Your task to perform on an android device: Go to Google maps Image 0: 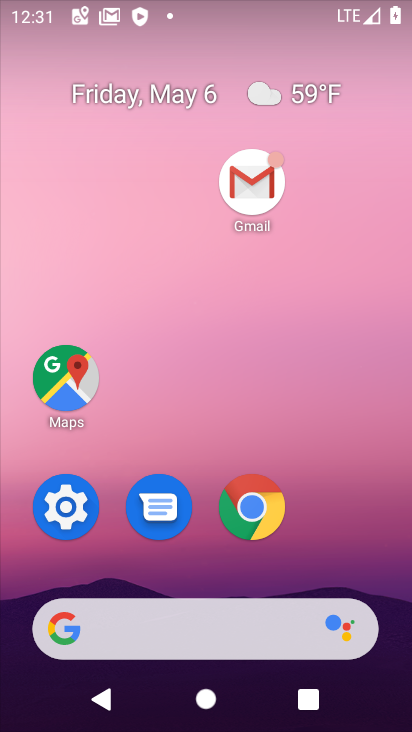
Step 0: click (59, 386)
Your task to perform on an android device: Go to Google maps Image 1: 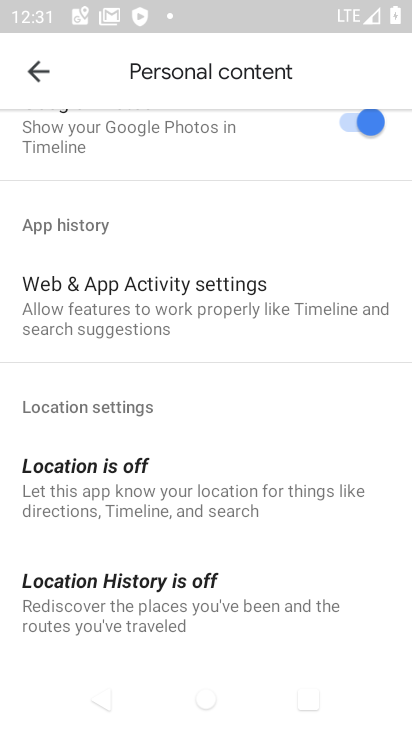
Step 1: click (39, 71)
Your task to perform on an android device: Go to Google maps Image 2: 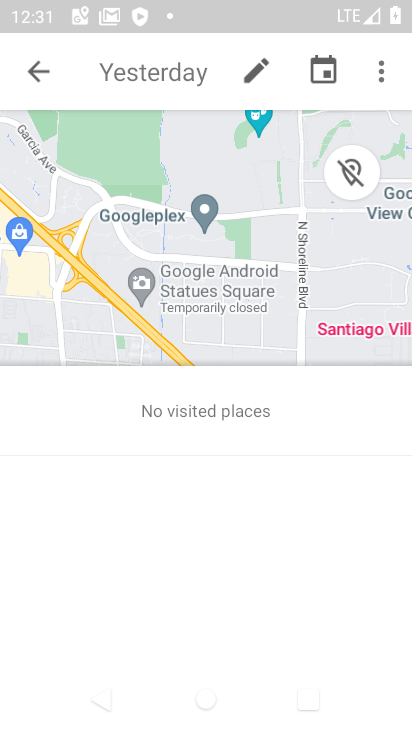
Step 2: task complete